Your task to perform on an android device: toggle wifi Image 0: 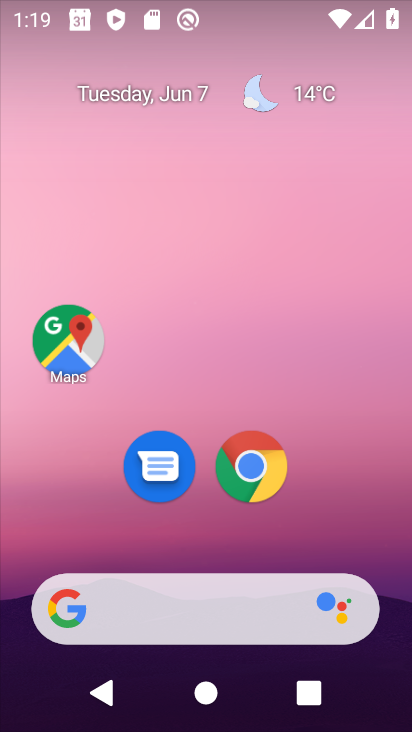
Step 0: drag from (74, 11) to (39, 446)
Your task to perform on an android device: toggle wifi Image 1: 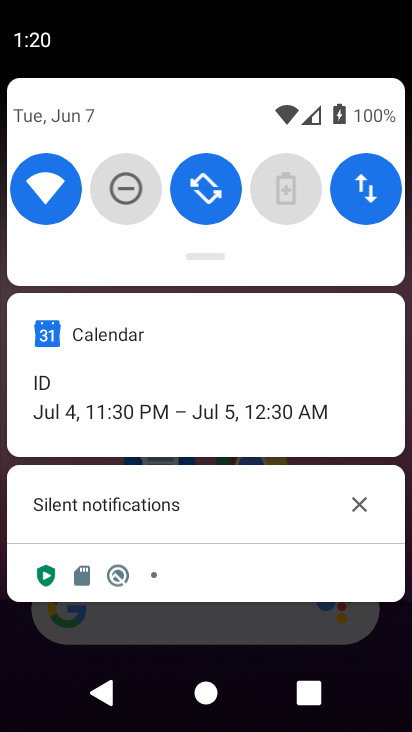
Step 1: click (45, 194)
Your task to perform on an android device: toggle wifi Image 2: 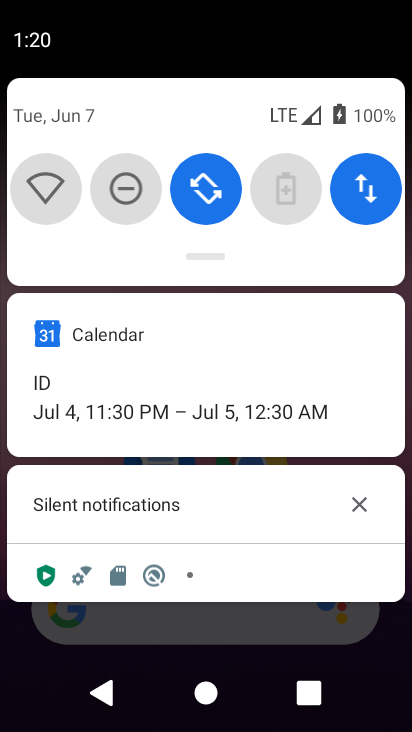
Step 2: task complete